Your task to perform on an android device: Open privacy settings Image 0: 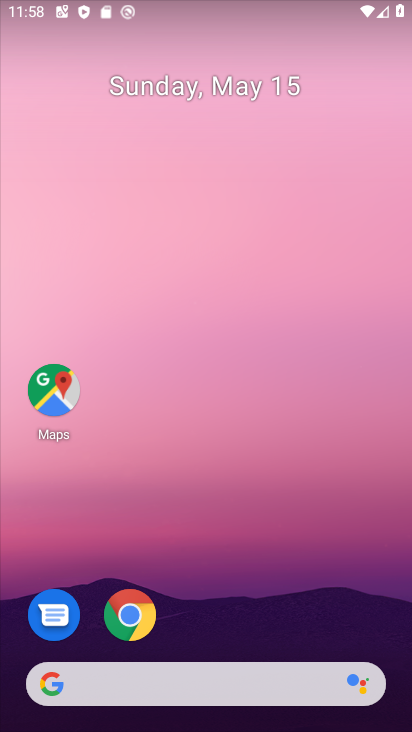
Step 0: drag from (324, 587) to (312, 226)
Your task to perform on an android device: Open privacy settings Image 1: 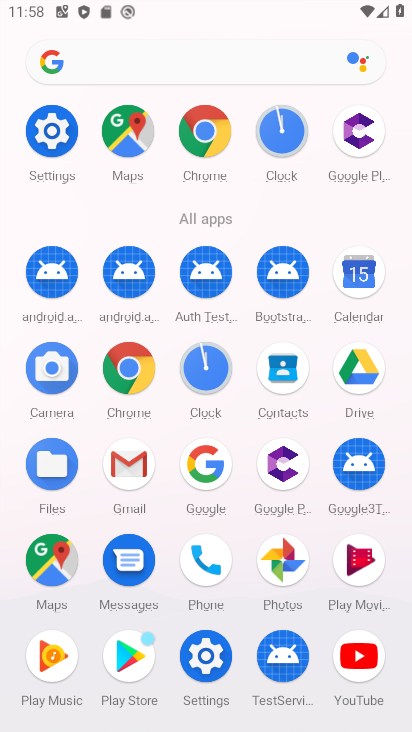
Step 1: click (221, 674)
Your task to perform on an android device: Open privacy settings Image 2: 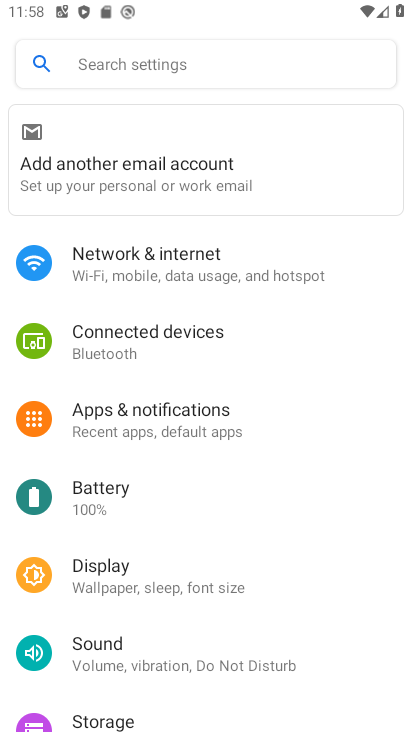
Step 2: drag from (334, 665) to (320, 394)
Your task to perform on an android device: Open privacy settings Image 3: 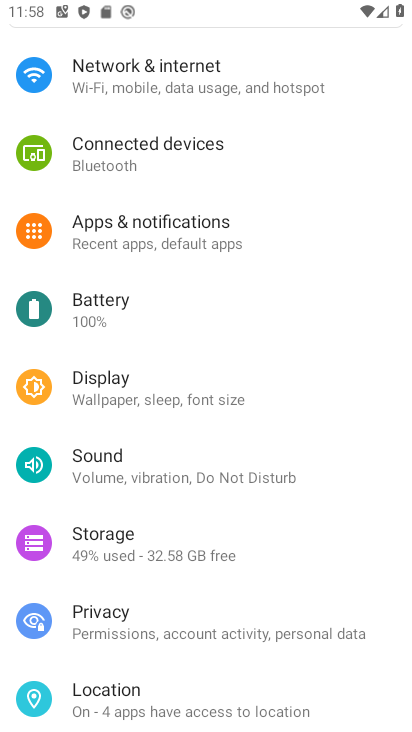
Step 3: click (199, 618)
Your task to perform on an android device: Open privacy settings Image 4: 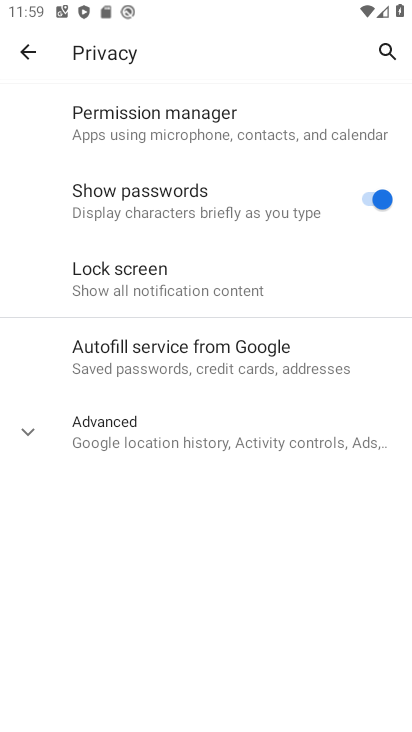
Step 4: task complete